Your task to perform on an android device: move an email to a new category in the gmail app Image 0: 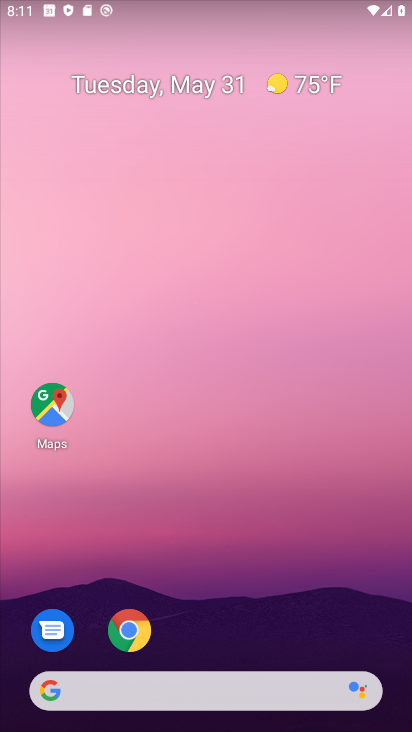
Step 0: drag from (187, 633) to (201, 191)
Your task to perform on an android device: move an email to a new category in the gmail app Image 1: 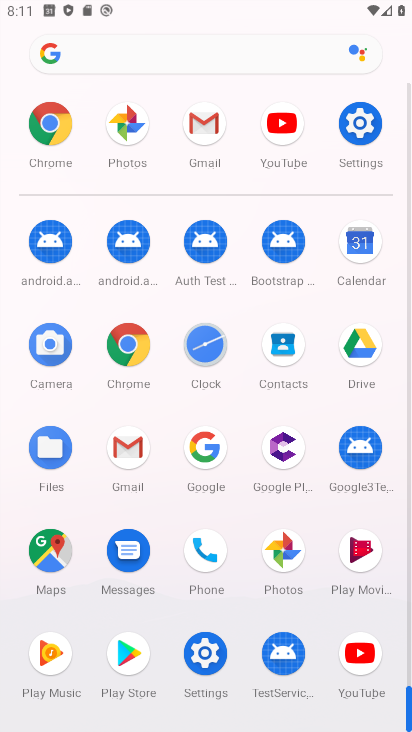
Step 1: click (131, 475)
Your task to perform on an android device: move an email to a new category in the gmail app Image 2: 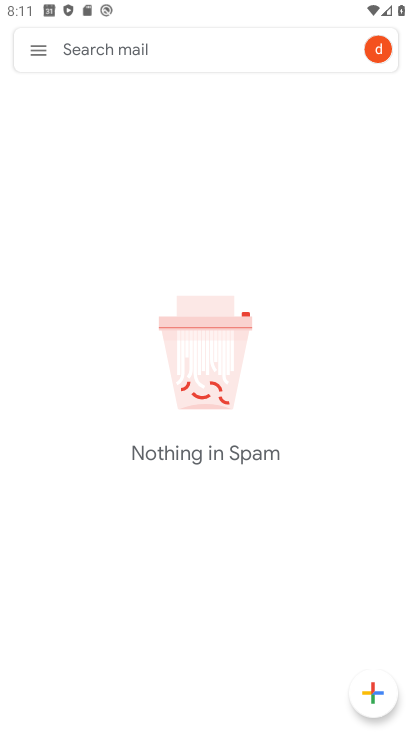
Step 2: click (34, 48)
Your task to perform on an android device: move an email to a new category in the gmail app Image 3: 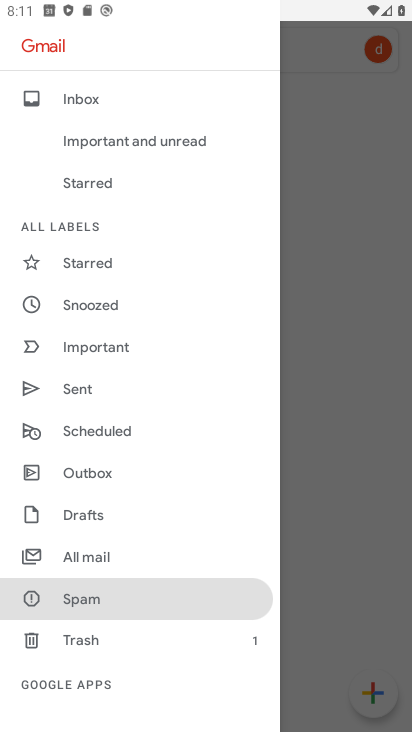
Step 3: click (96, 560)
Your task to perform on an android device: move an email to a new category in the gmail app Image 4: 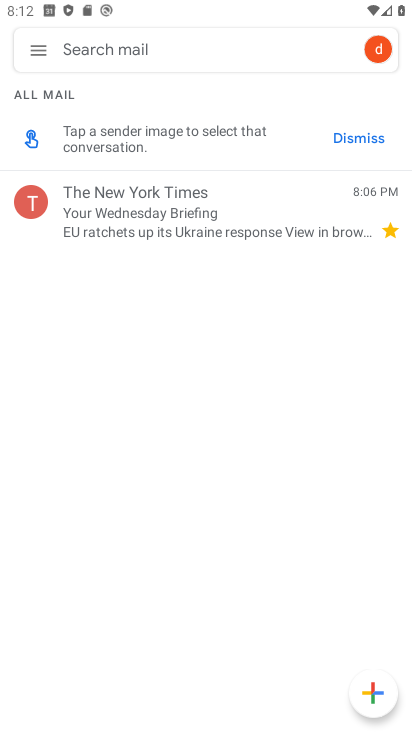
Step 4: click (157, 218)
Your task to perform on an android device: move an email to a new category in the gmail app Image 5: 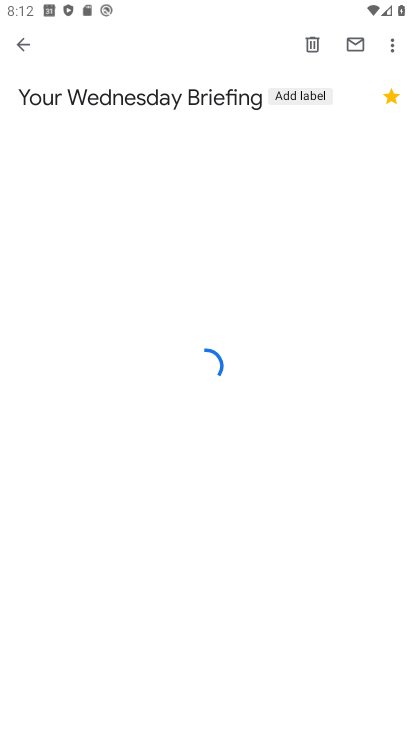
Step 5: click (385, 54)
Your task to perform on an android device: move an email to a new category in the gmail app Image 6: 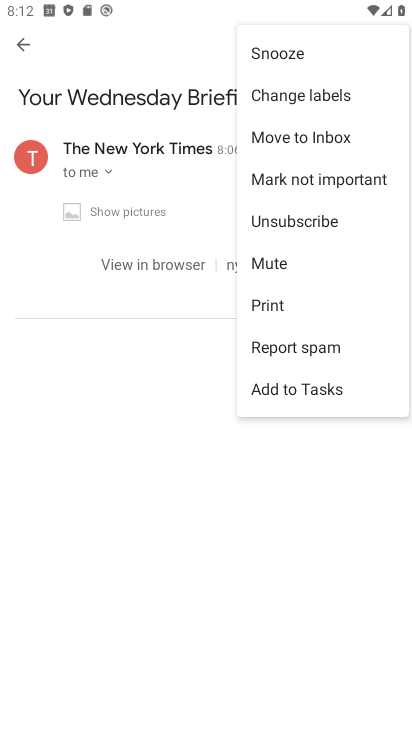
Step 6: click (318, 100)
Your task to perform on an android device: move an email to a new category in the gmail app Image 7: 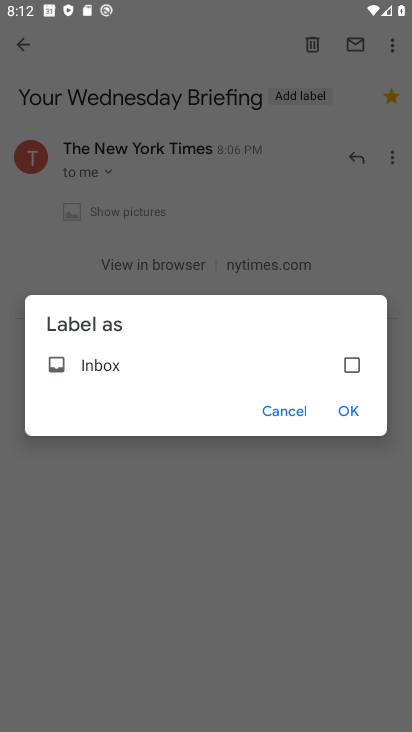
Step 7: click (355, 368)
Your task to perform on an android device: move an email to a new category in the gmail app Image 8: 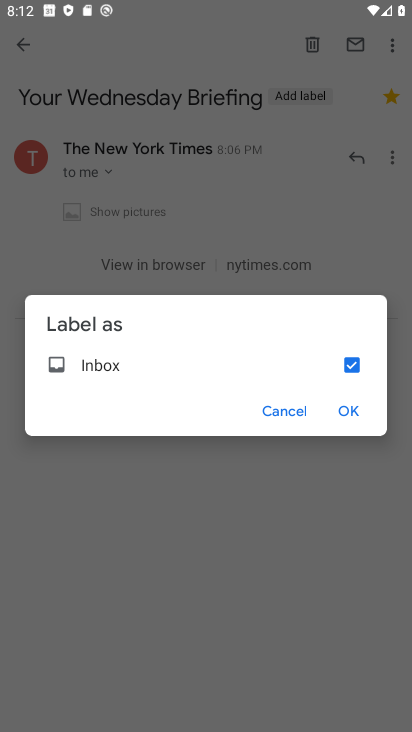
Step 8: click (352, 411)
Your task to perform on an android device: move an email to a new category in the gmail app Image 9: 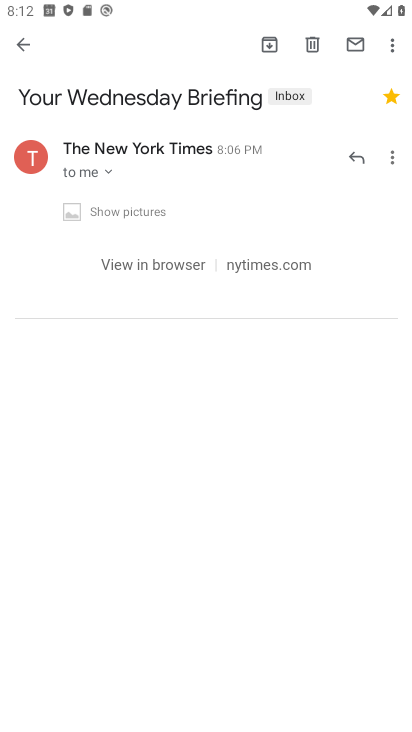
Step 9: task complete